Your task to perform on an android device: refresh tabs in the chrome app Image 0: 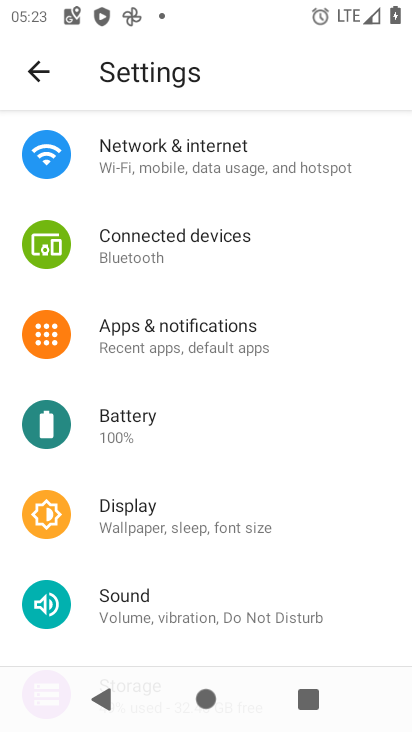
Step 0: press home button
Your task to perform on an android device: refresh tabs in the chrome app Image 1: 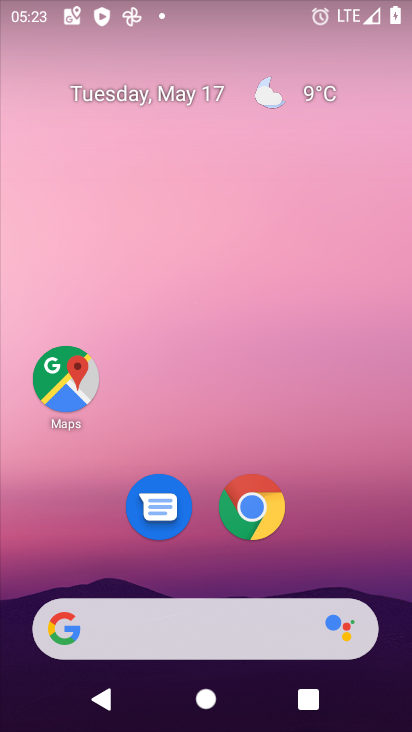
Step 1: click (236, 517)
Your task to perform on an android device: refresh tabs in the chrome app Image 2: 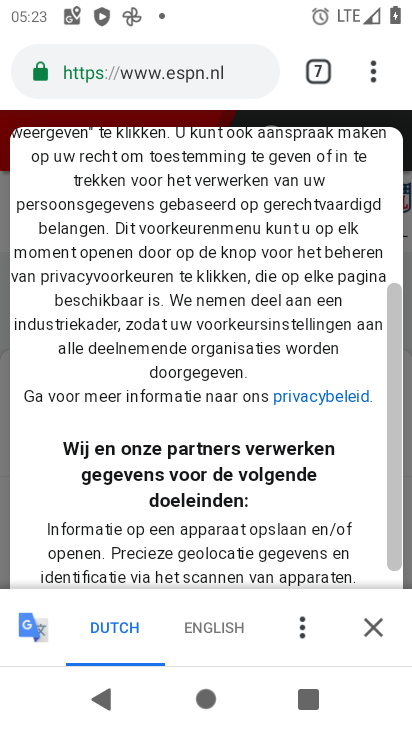
Step 2: click (373, 74)
Your task to perform on an android device: refresh tabs in the chrome app Image 3: 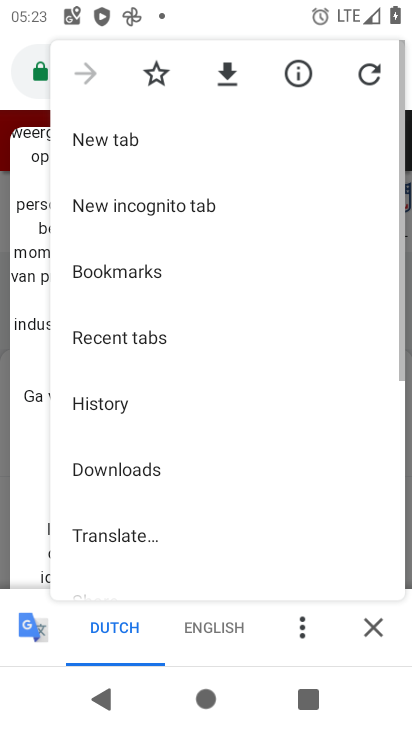
Step 3: click (368, 71)
Your task to perform on an android device: refresh tabs in the chrome app Image 4: 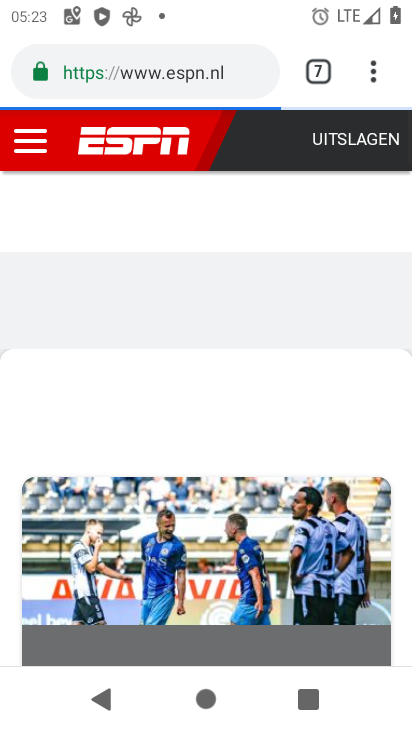
Step 4: task complete